Your task to perform on an android device: stop showing notifications on the lock screen Image 0: 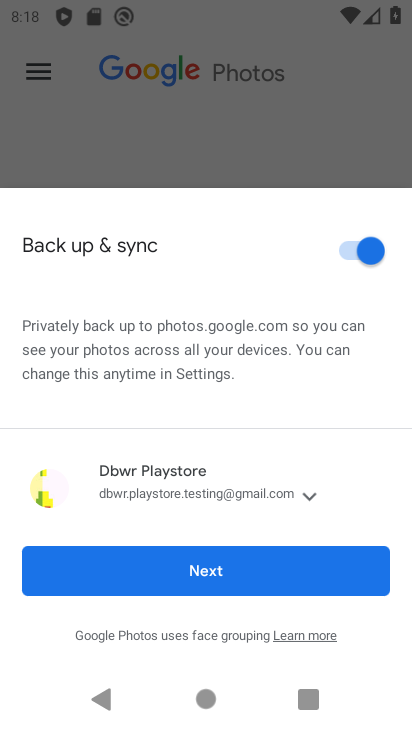
Step 0: press home button
Your task to perform on an android device: stop showing notifications on the lock screen Image 1: 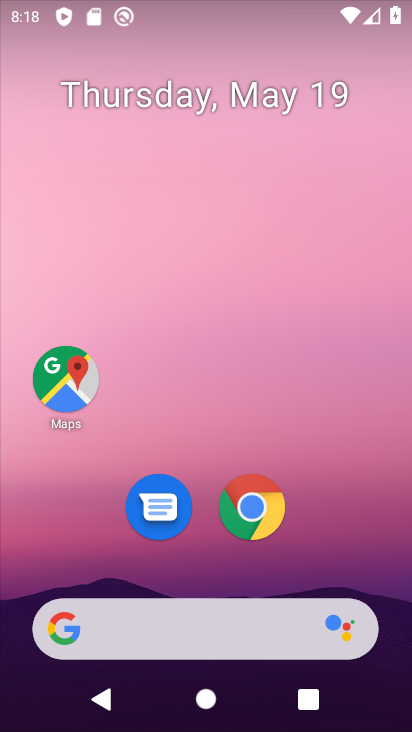
Step 1: drag from (211, 726) to (214, 155)
Your task to perform on an android device: stop showing notifications on the lock screen Image 2: 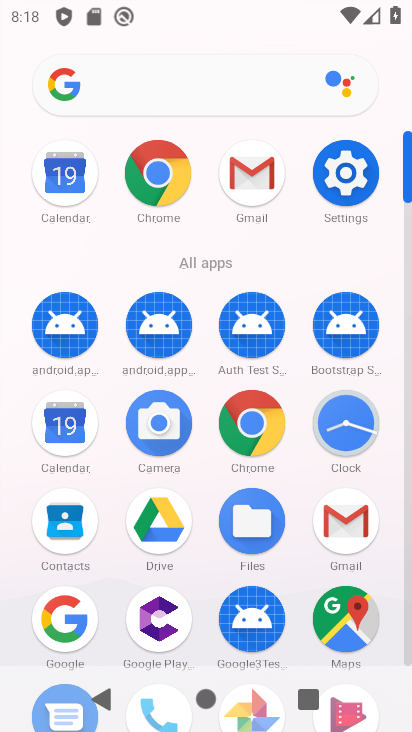
Step 2: click (339, 175)
Your task to perform on an android device: stop showing notifications on the lock screen Image 3: 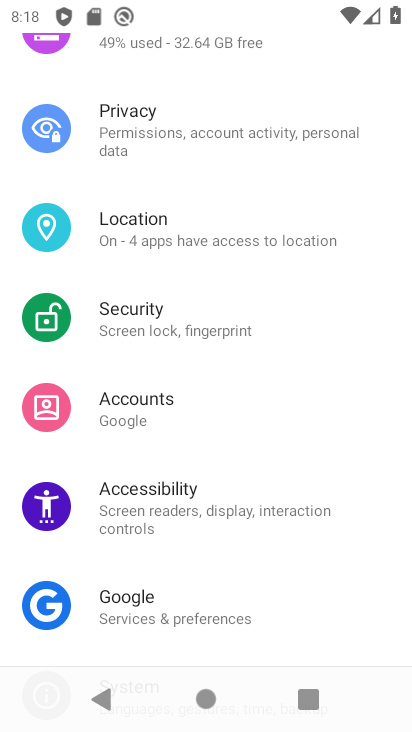
Step 3: drag from (205, 177) to (203, 591)
Your task to perform on an android device: stop showing notifications on the lock screen Image 4: 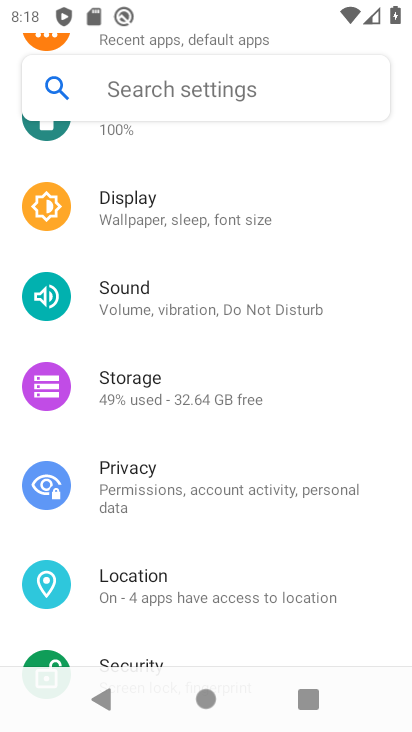
Step 4: drag from (196, 186) to (196, 631)
Your task to perform on an android device: stop showing notifications on the lock screen Image 5: 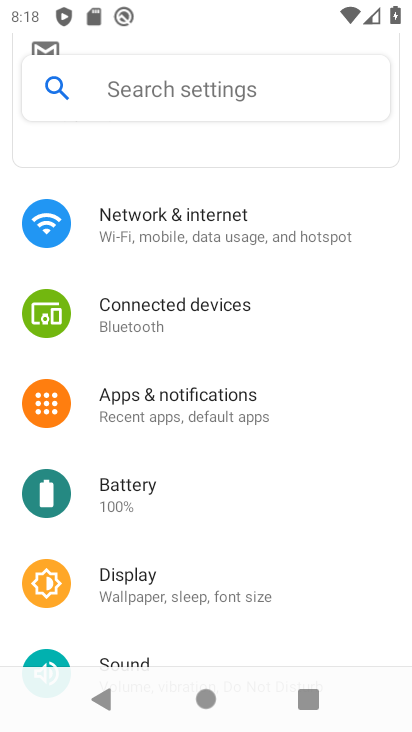
Step 5: click (159, 391)
Your task to perform on an android device: stop showing notifications on the lock screen Image 6: 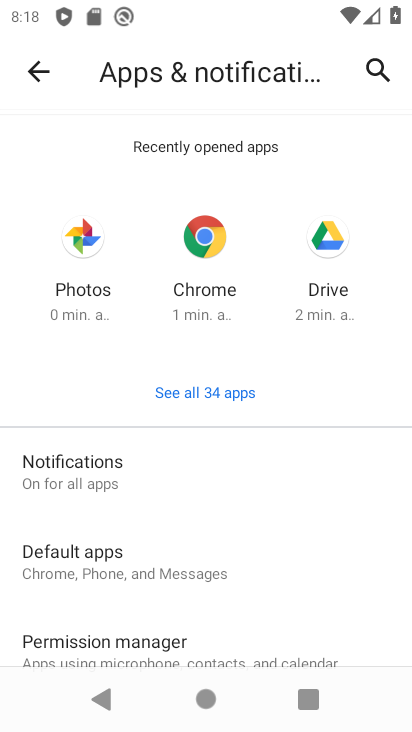
Step 6: click (44, 469)
Your task to perform on an android device: stop showing notifications on the lock screen Image 7: 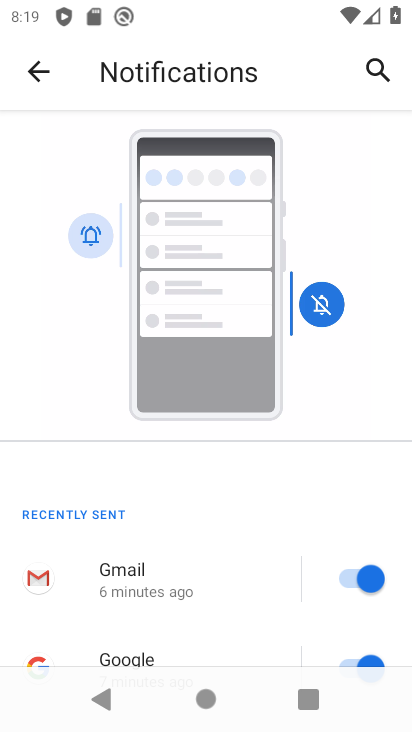
Step 7: drag from (173, 640) to (174, 305)
Your task to perform on an android device: stop showing notifications on the lock screen Image 8: 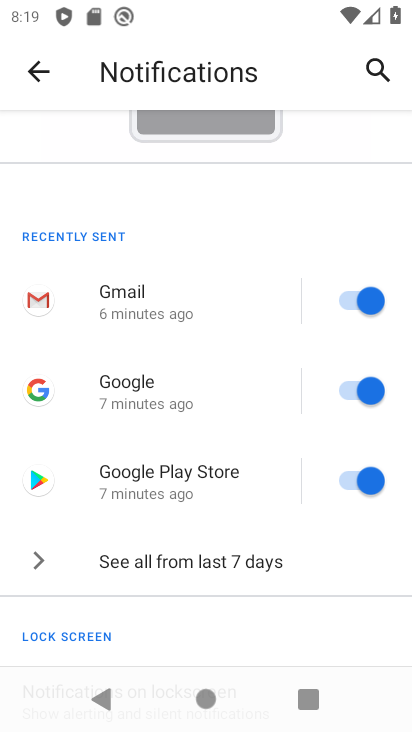
Step 8: drag from (175, 633) to (138, 233)
Your task to perform on an android device: stop showing notifications on the lock screen Image 9: 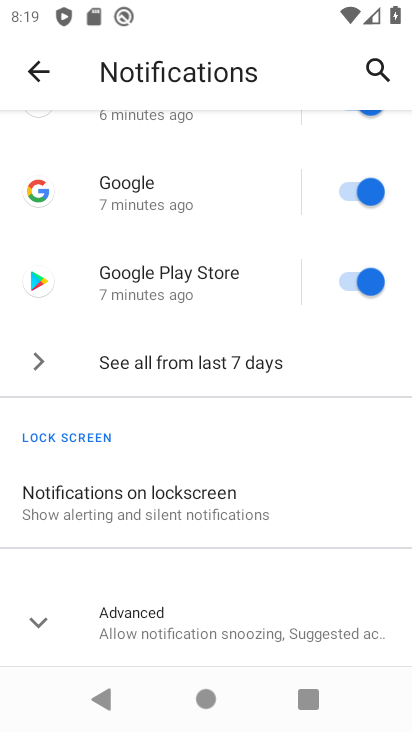
Step 9: click (135, 501)
Your task to perform on an android device: stop showing notifications on the lock screen Image 10: 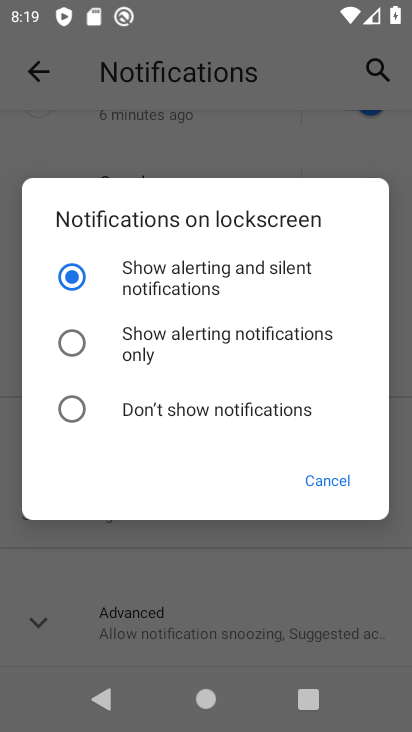
Step 10: click (68, 405)
Your task to perform on an android device: stop showing notifications on the lock screen Image 11: 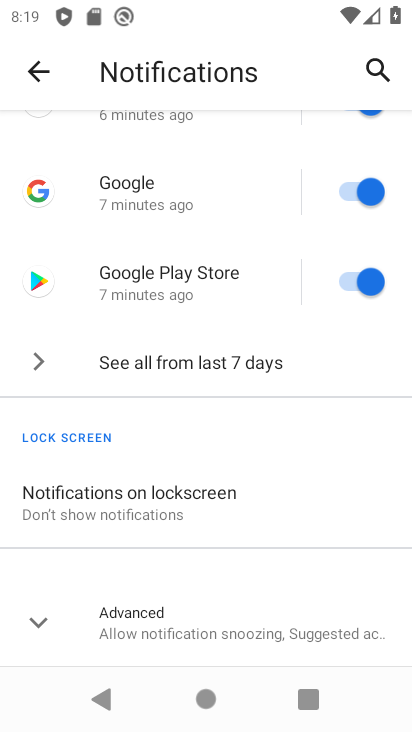
Step 11: task complete